Your task to perform on an android device: turn off data saver in the chrome app Image 0: 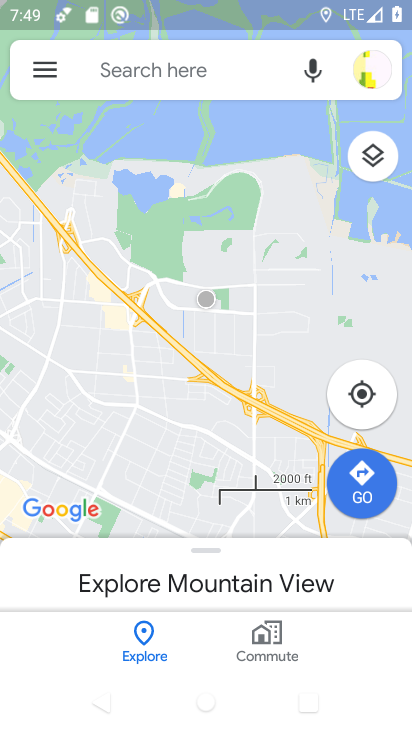
Step 0: press home button
Your task to perform on an android device: turn off data saver in the chrome app Image 1: 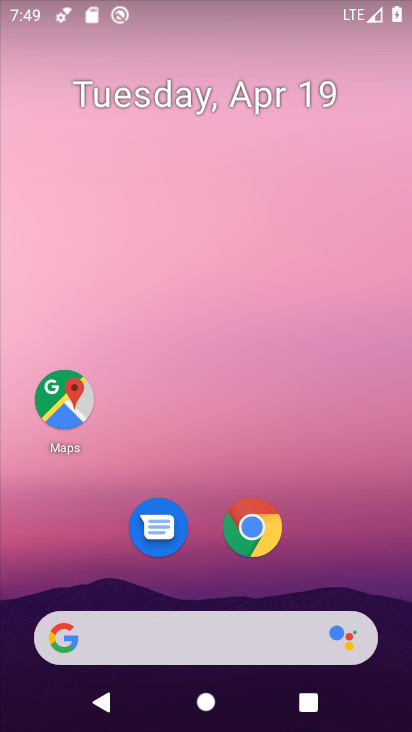
Step 1: click (370, 539)
Your task to perform on an android device: turn off data saver in the chrome app Image 2: 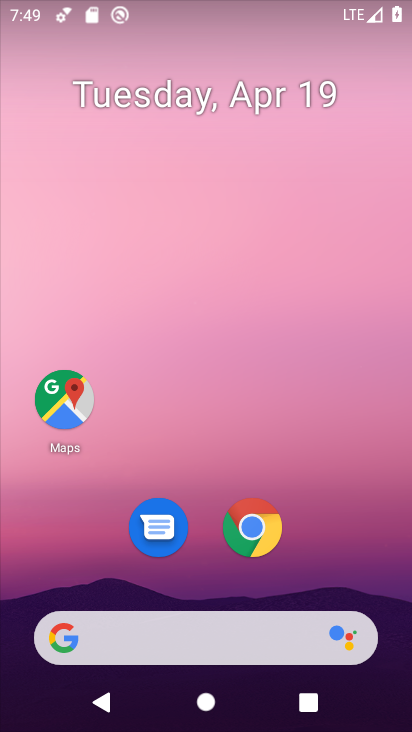
Step 2: drag from (370, 535) to (355, 219)
Your task to perform on an android device: turn off data saver in the chrome app Image 3: 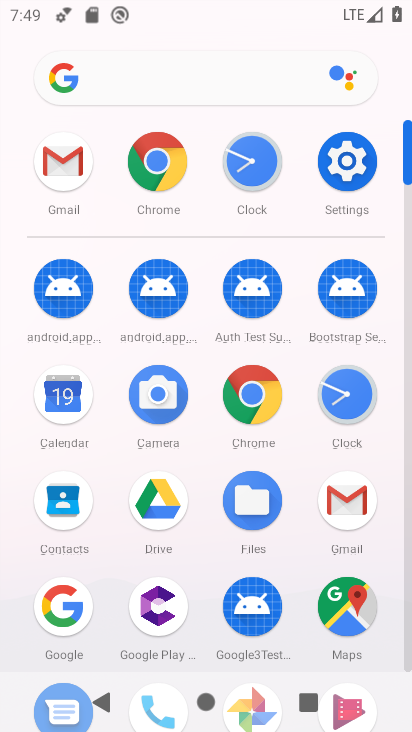
Step 3: click (265, 412)
Your task to perform on an android device: turn off data saver in the chrome app Image 4: 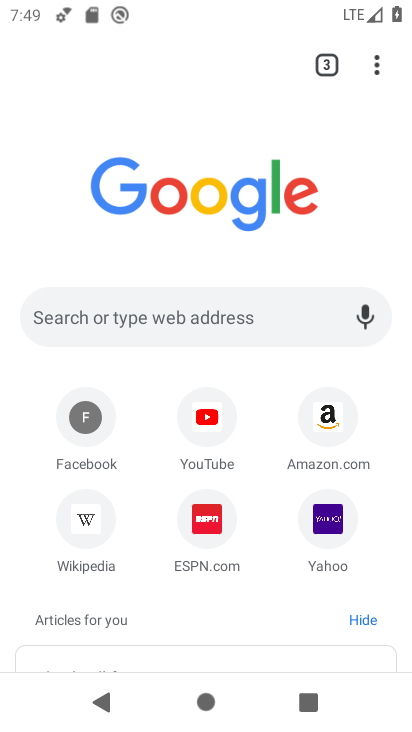
Step 4: click (408, 86)
Your task to perform on an android device: turn off data saver in the chrome app Image 5: 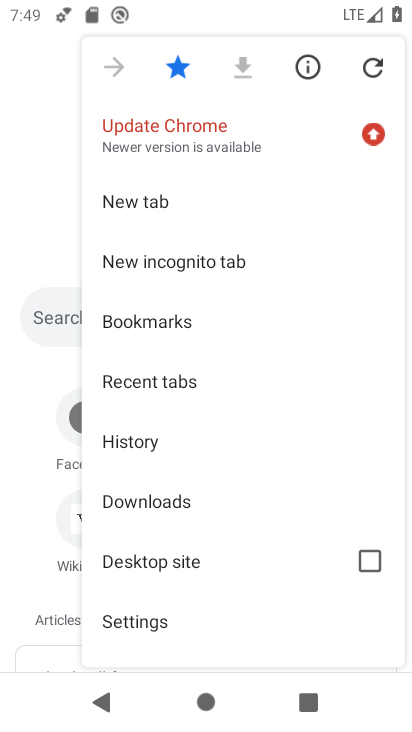
Step 5: click (148, 622)
Your task to perform on an android device: turn off data saver in the chrome app Image 6: 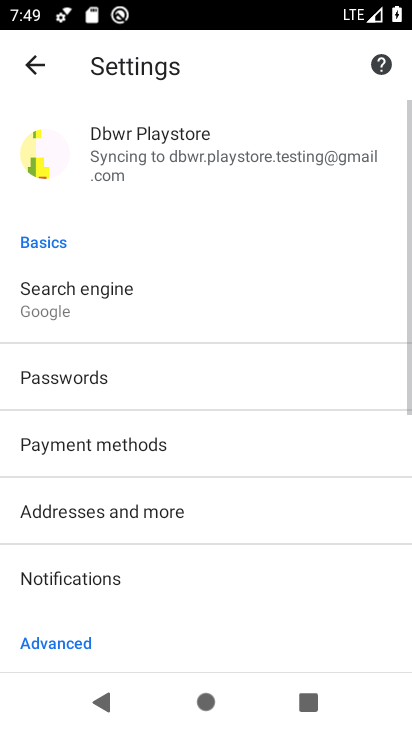
Step 6: drag from (274, 564) to (322, 298)
Your task to perform on an android device: turn off data saver in the chrome app Image 7: 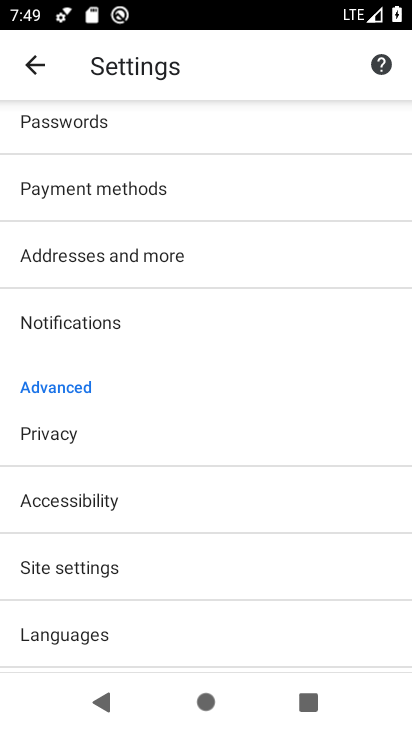
Step 7: drag from (187, 620) to (293, 315)
Your task to perform on an android device: turn off data saver in the chrome app Image 8: 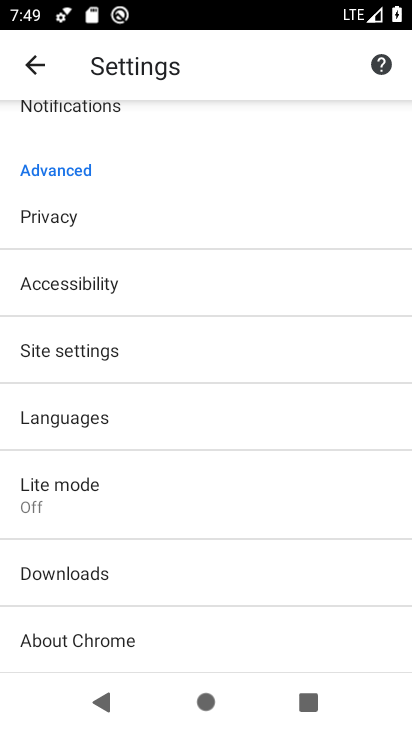
Step 8: click (208, 499)
Your task to perform on an android device: turn off data saver in the chrome app Image 9: 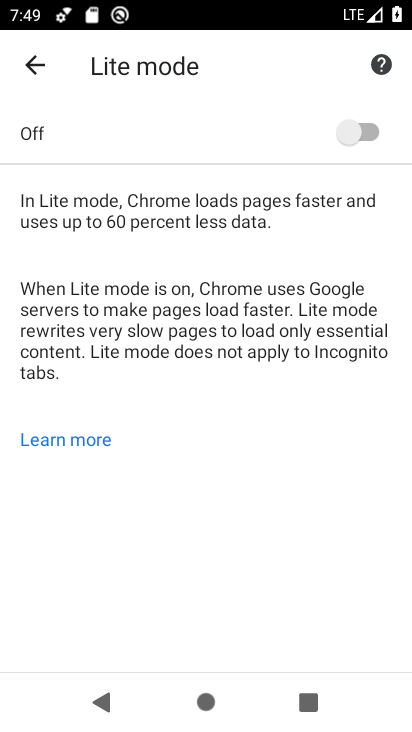
Step 9: task complete